Your task to perform on an android device: open device folders in google photos Image 0: 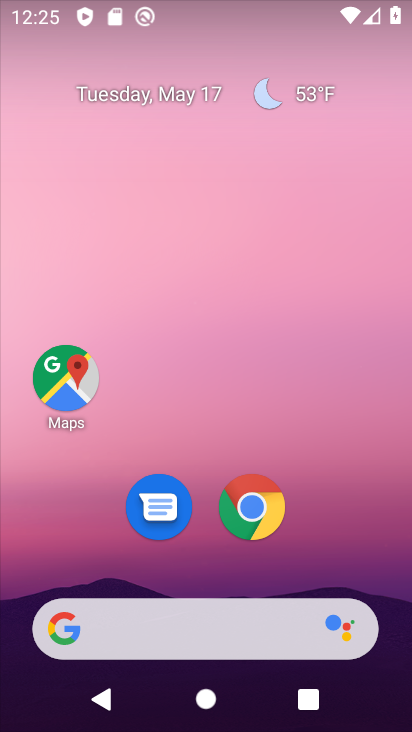
Step 0: drag from (311, 574) to (233, 72)
Your task to perform on an android device: open device folders in google photos Image 1: 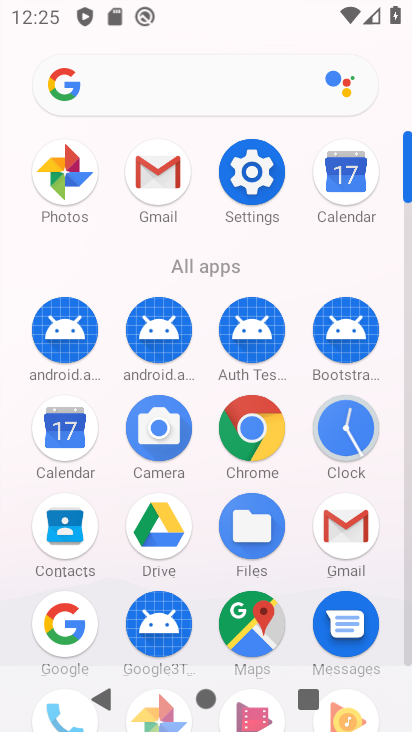
Step 1: click (65, 181)
Your task to perform on an android device: open device folders in google photos Image 2: 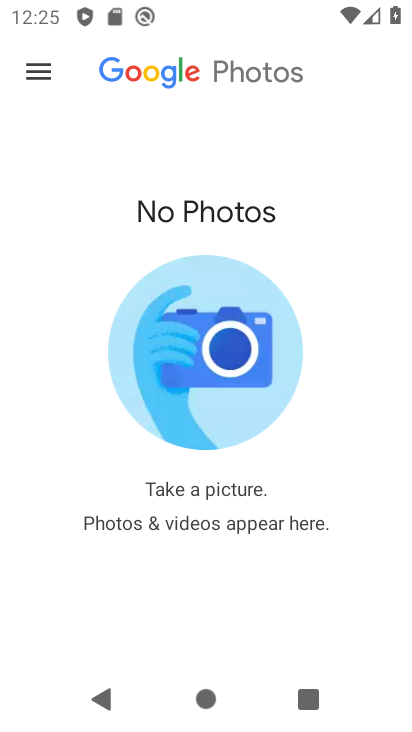
Step 2: click (39, 69)
Your task to perform on an android device: open device folders in google photos Image 3: 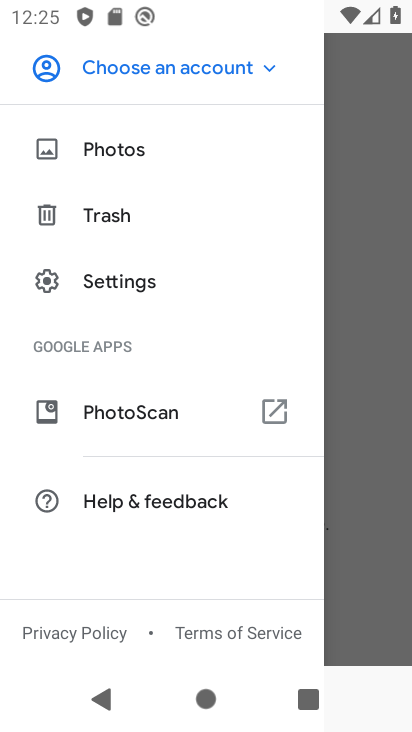
Step 3: drag from (149, 174) to (226, 528)
Your task to perform on an android device: open device folders in google photos Image 4: 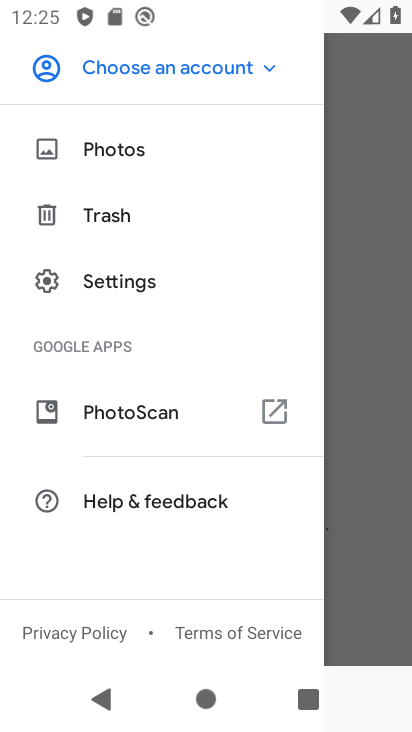
Step 4: drag from (182, 229) to (182, 444)
Your task to perform on an android device: open device folders in google photos Image 5: 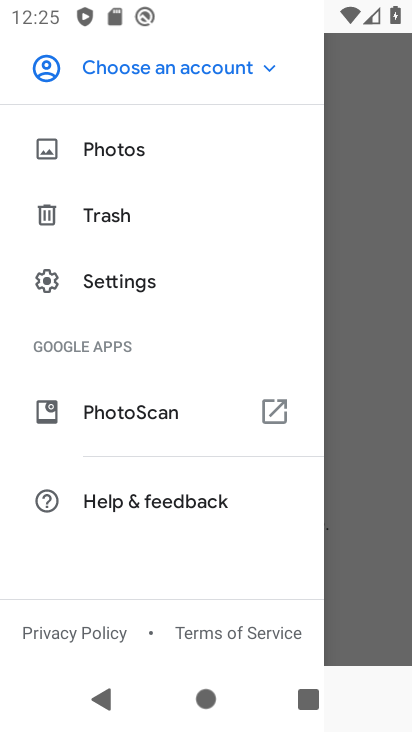
Step 5: click (203, 79)
Your task to perform on an android device: open device folders in google photos Image 6: 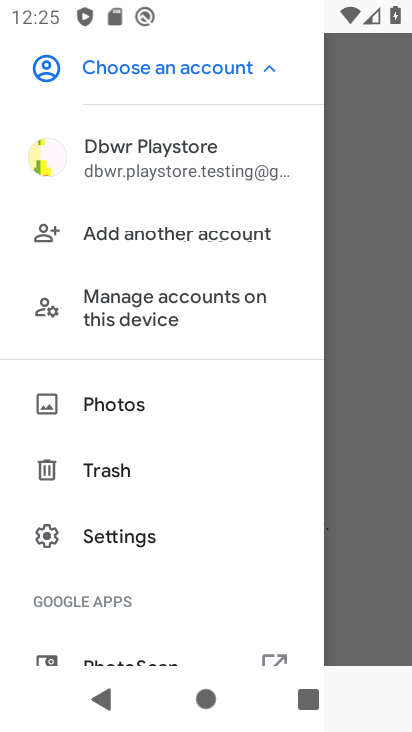
Step 6: click (194, 148)
Your task to perform on an android device: open device folders in google photos Image 7: 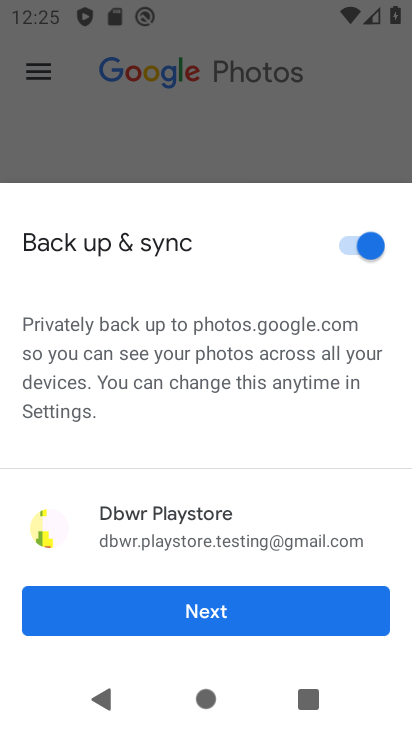
Step 7: click (193, 591)
Your task to perform on an android device: open device folders in google photos Image 8: 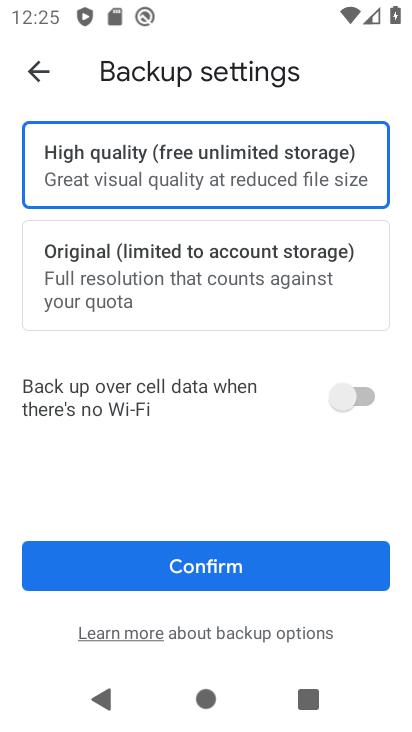
Step 8: click (185, 578)
Your task to perform on an android device: open device folders in google photos Image 9: 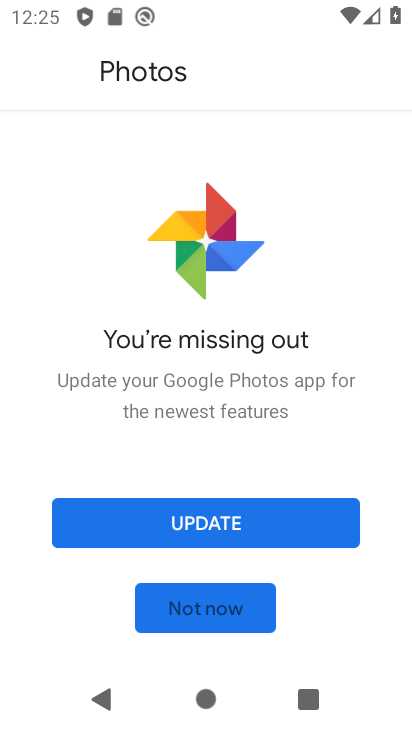
Step 9: click (193, 613)
Your task to perform on an android device: open device folders in google photos Image 10: 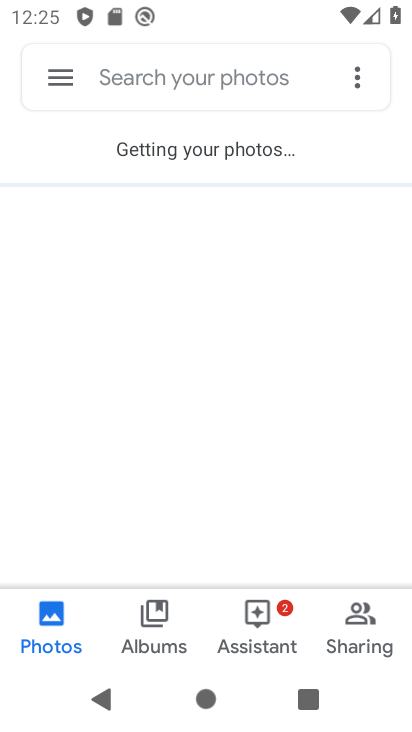
Step 10: click (59, 94)
Your task to perform on an android device: open device folders in google photos Image 11: 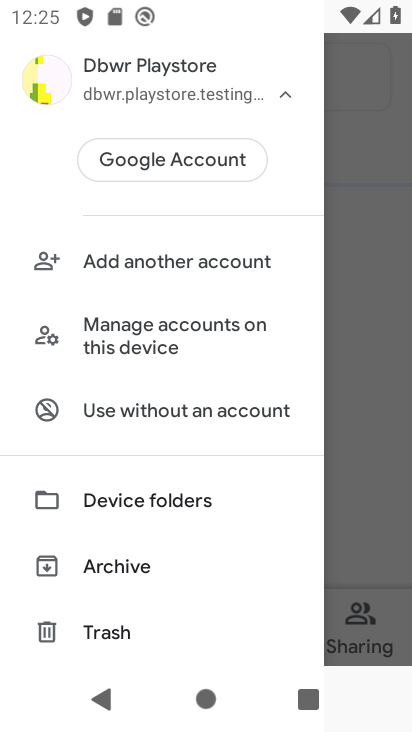
Step 11: click (166, 509)
Your task to perform on an android device: open device folders in google photos Image 12: 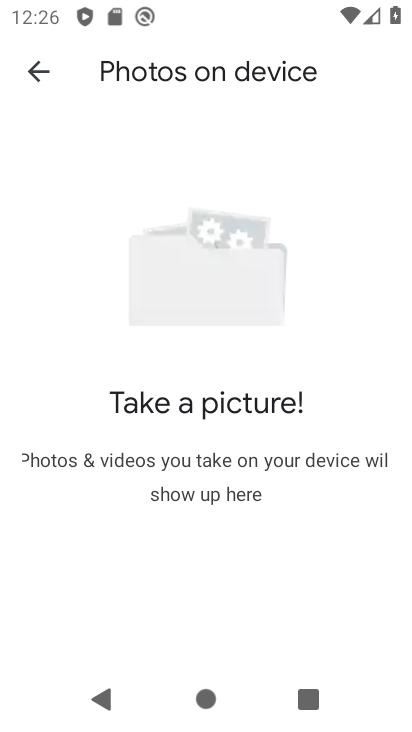
Step 12: task complete